Your task to perform on an android device: Open Google Chrome and click the shortcut for Amazon.com Image 0: 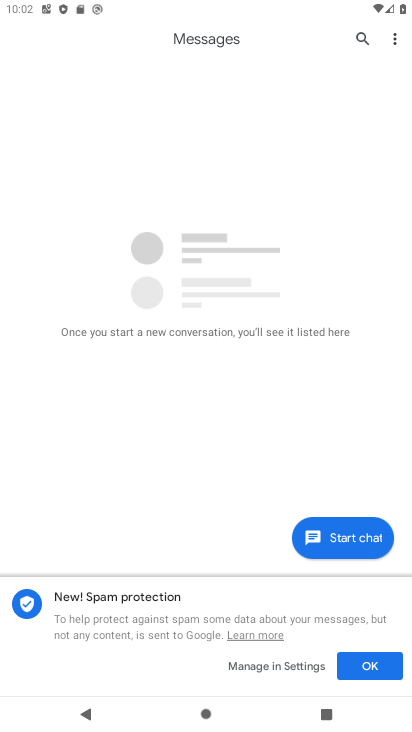
Step 0: press home button
Your task to perform on an android device: Open Google Chrome and click the shortcut for Amazon.com Image 1: 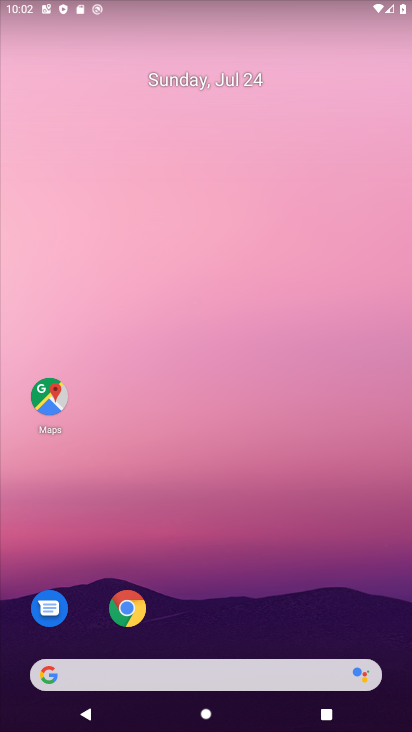
Step 1: click (129, 606)
Your task to perform on an android device: Open Google Chrome and click the shortcut for Amazon.com Image 2: 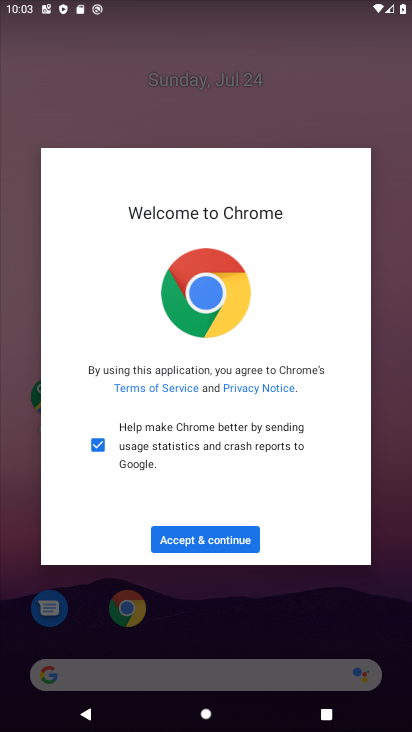
Step 2: click (224, 535)
Your task to perform on an android device: Open Google Chrome and click the shortcut for Amazon.com Image 3: 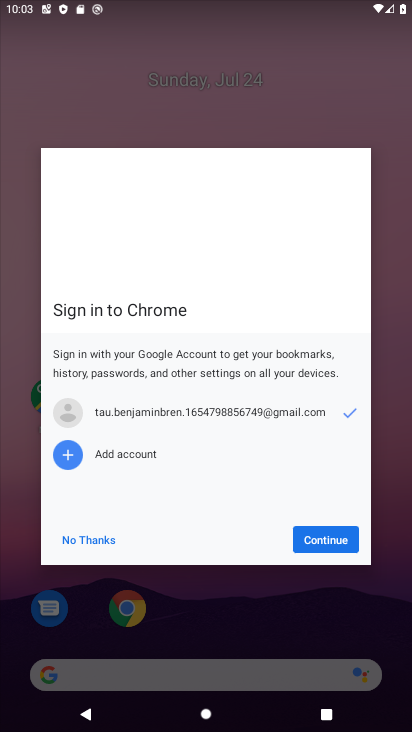
Step 3: click (318, 530)
Your task to perform on an android device: Open Google Chrome and click the shortcut for Amazon.com Image 4: 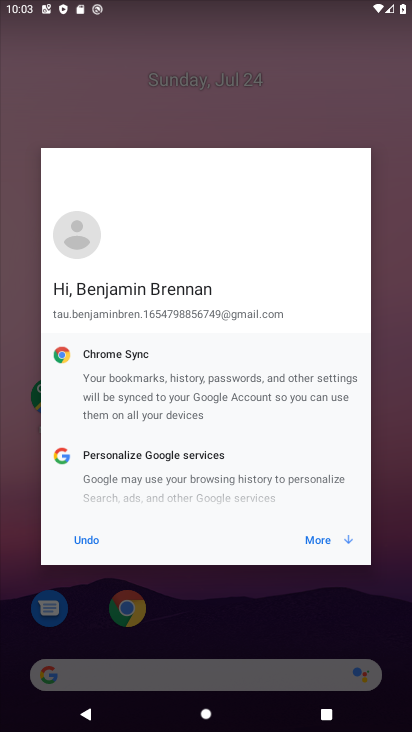
Step 4: click (318, 538)
Your task to perform on an android device: Open Google Chrome and click the shortcut for Amazon.com Image 5: 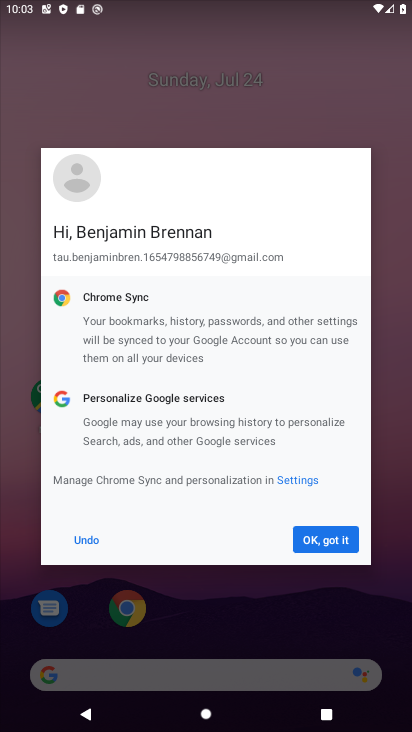
Step 5: click (316, 539)
Your task to perform on an android device: Open Google Chrome and click the shortcut for Amazon.com Image 6: 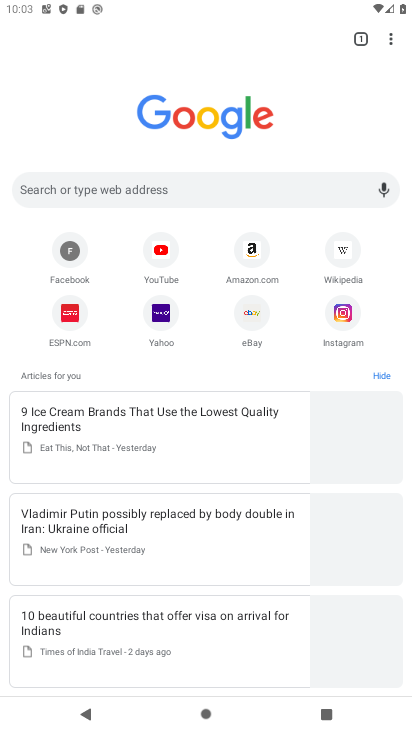
Step 6: click (251, 258)
Your task to perform on an android device: Open Google Chrome and click the shortcut for Amazon.com Image 7: 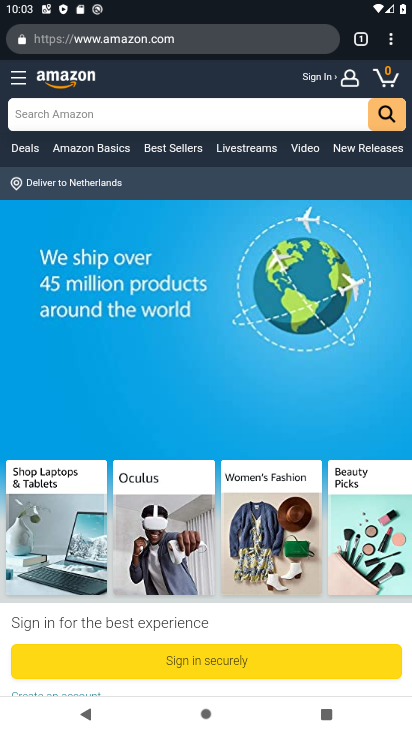
Step 7: task complete